Your task to perform on an android device: add a label to a message in the gmail app Image 0: 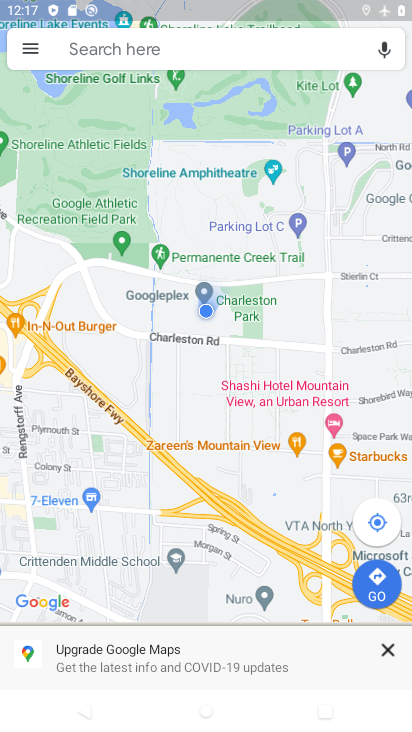
Step 0: drag from (155, 583) to (261, 240)
Your task to perform on an android device: add a label to a message in the gmail app Image 1: 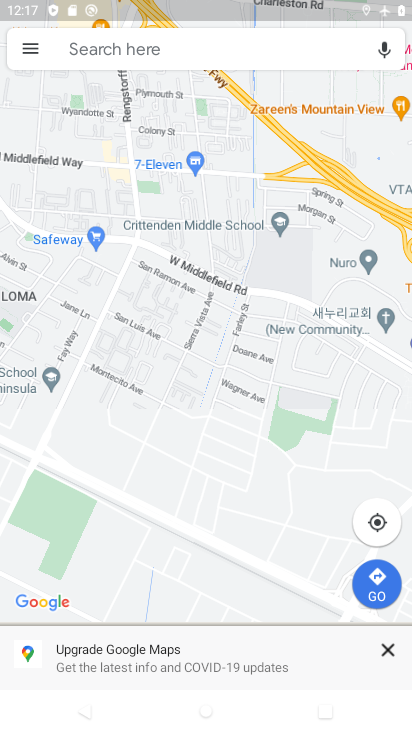
Step 1: press home button
Your task to perform on an android device: add a label to a message in the gmail app Image 2: 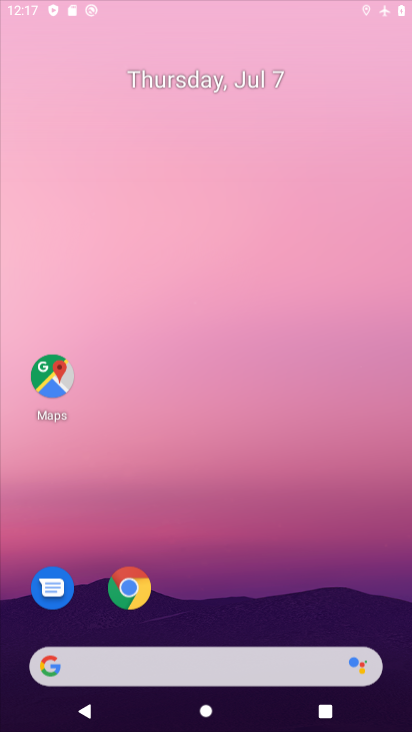
Step 2: drag from (234, 533) to (265, 102)
Your task to perform on an android device: add a label to a message in the gmail app Image 3: 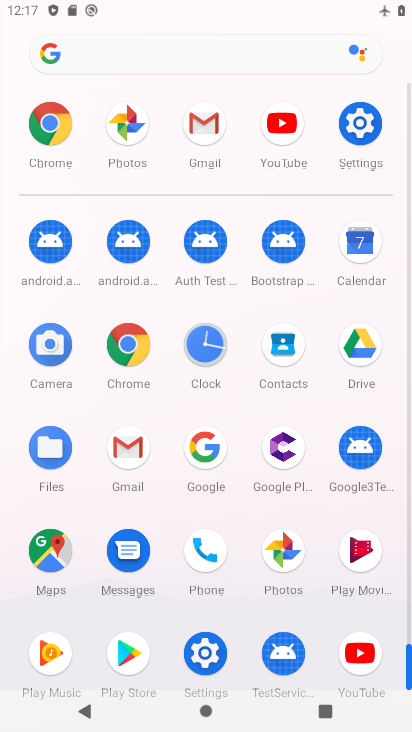
Step 3: click (190, 82)
Your task to perform on an android device: add a label to a message in the gmail app Image 4: 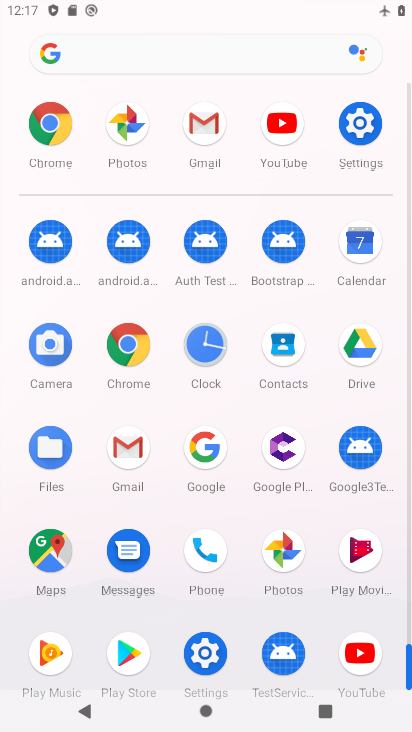
Step 4: click (210, 90)
Your task to perform on an android device: add a label to a message in the gmail app Image 5: 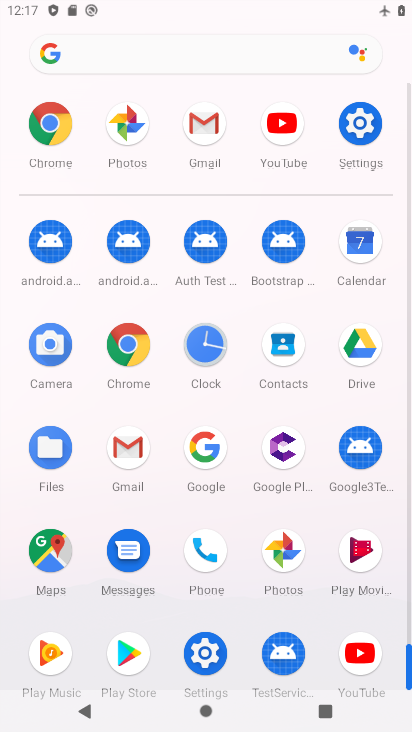
Step 5: click (196, 113)
Your task to perform on an android device: add a label to a message in the gmail app Image 6: 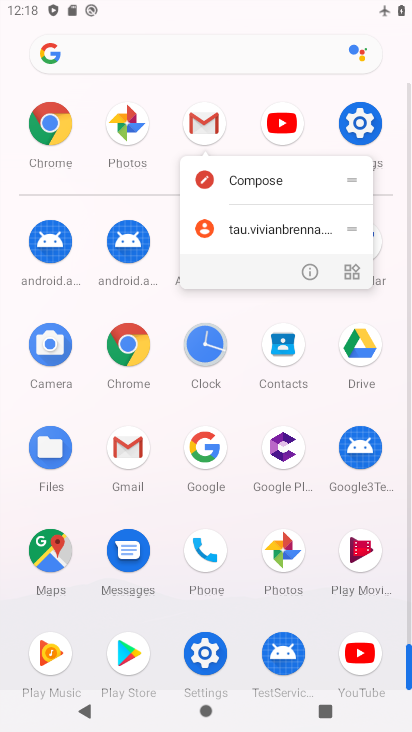
Step 6: click (310, 267)
Your task to perform on an android device: add a label to a message in the gmail app Image 7: 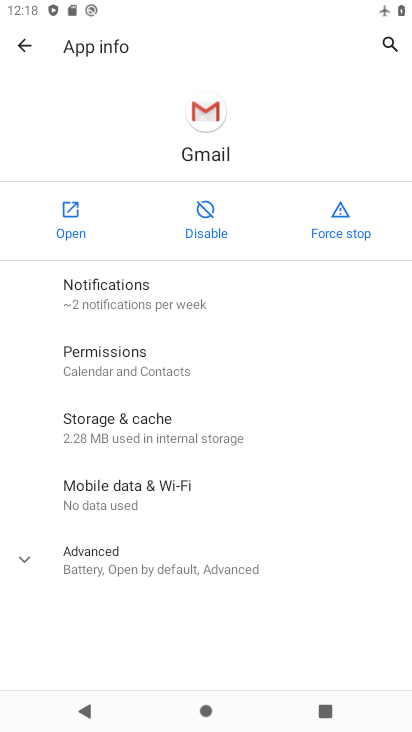
Step 7: click (73, 228)
Your task to perform on an android device: add a label to a message in the gmail app Image 8: 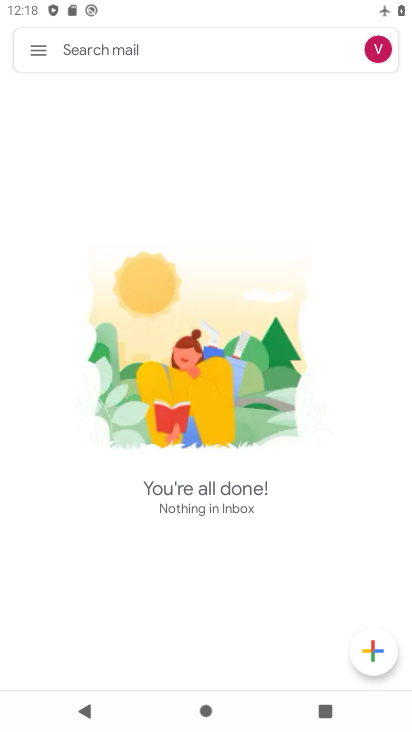
Step 8: click (29, 33)
Your task to perform on an android device: add a label to a message in the gmail app Image 9: 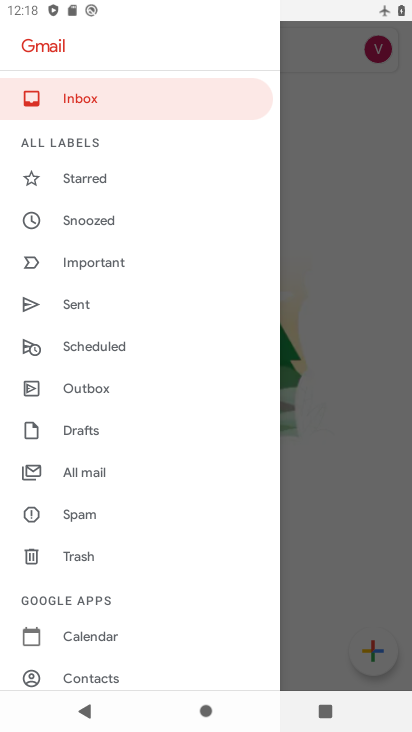
Step 9: click (335, 362)
Your task to perform on an android device: add a label to a message in the gmail app Image 10: 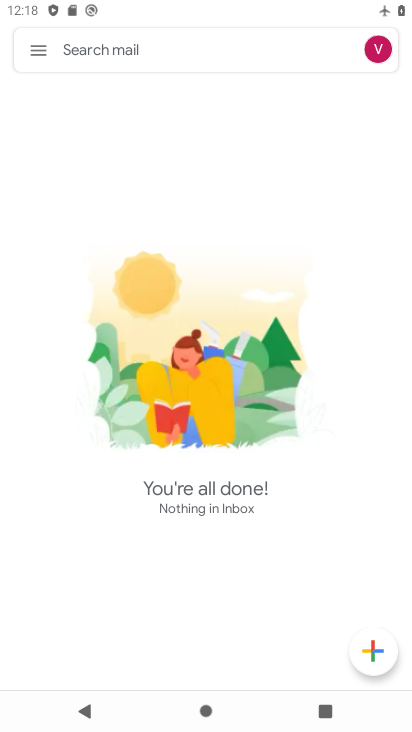
Step 10: task complete